Your task to perform on an android device: allow cookies in the chrome app Image 0: 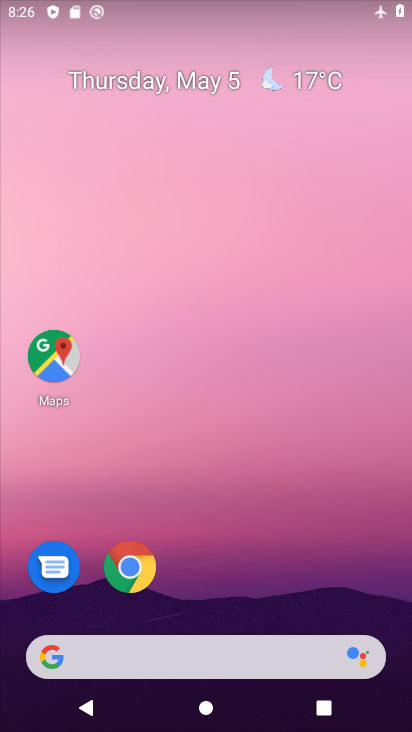
Step 0: click (125, 574)
Your task to perform on an android device: allow cookies in the chrome app Image 1: 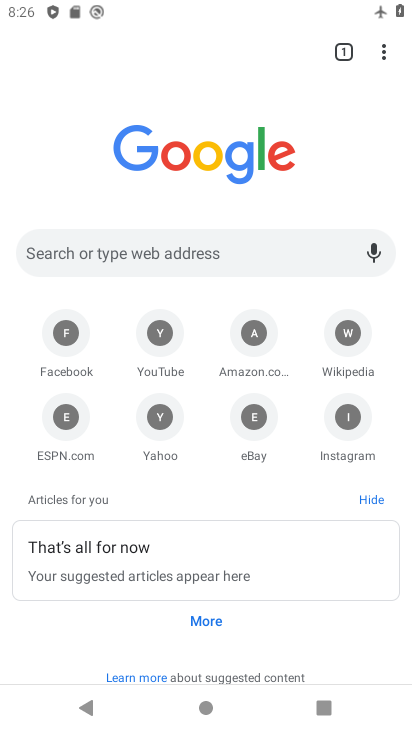
Step 1: drag from (382, 52) to (226, 434)
Your task to perform on an android device: allow cookies in the chrome app Image 2: 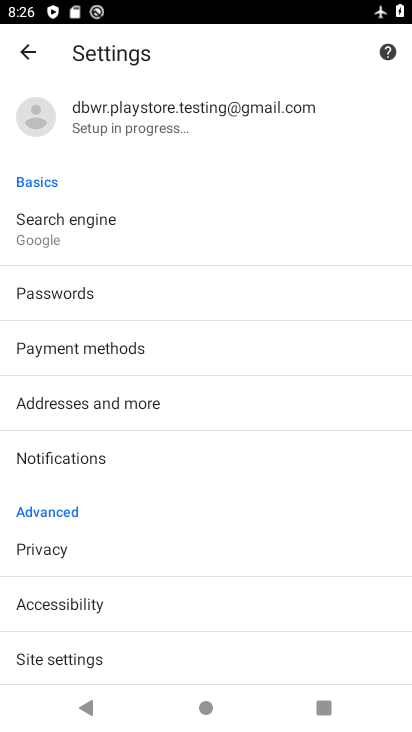
Step 2: drag from (155, 646) to (146, 412)
Your task to perform on an android device: allow cookies in the chrome app Image 3: 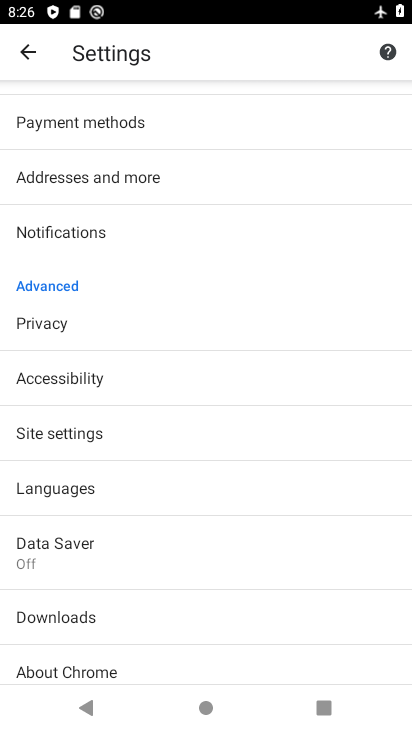
Step 3: click (83, 426)
Your task to perform on an android device: allow cookies in the chrome app Image 4: 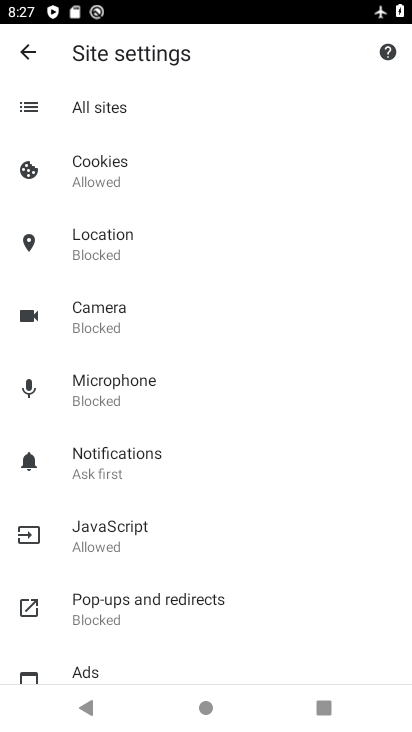
Step 4: click (108, 169)
Your task to perform on an android device: allow cookies in the chrome app Image 5: 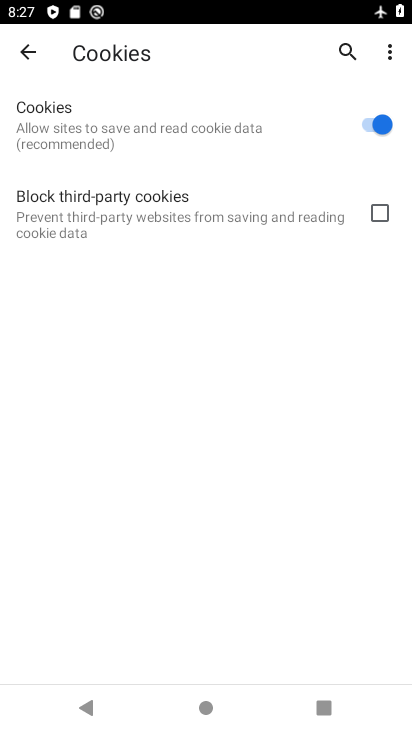
Step 5: task complete